Your task to perform on an android device: check google app version Image 0: 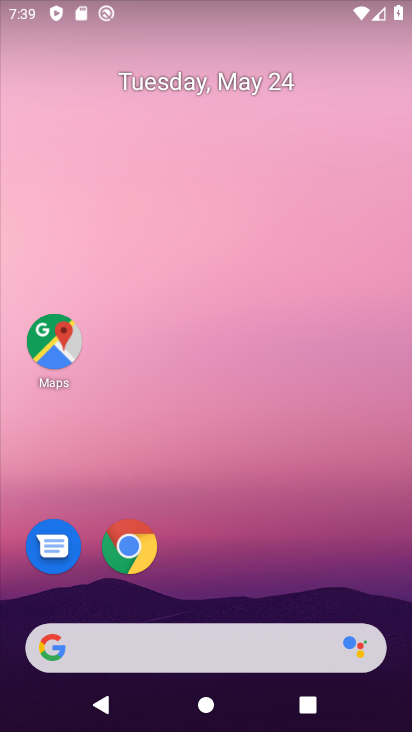
Step 0: click (230, 651)
Your task to perform on an android device: check google app version Image 1: 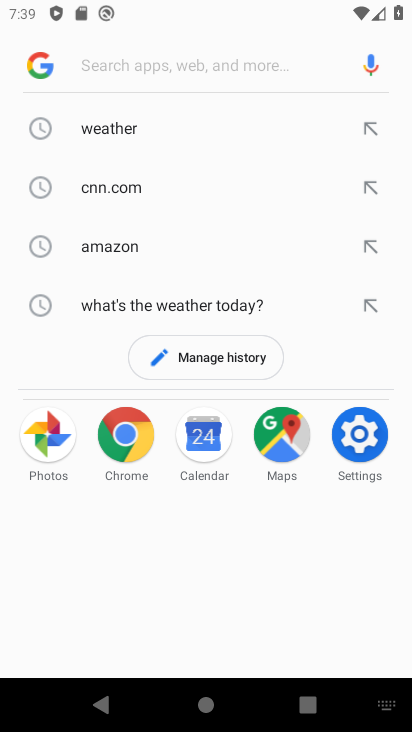
Step 1: click (34, 54)
Your task to perform on an android device: check google app version Image 2: 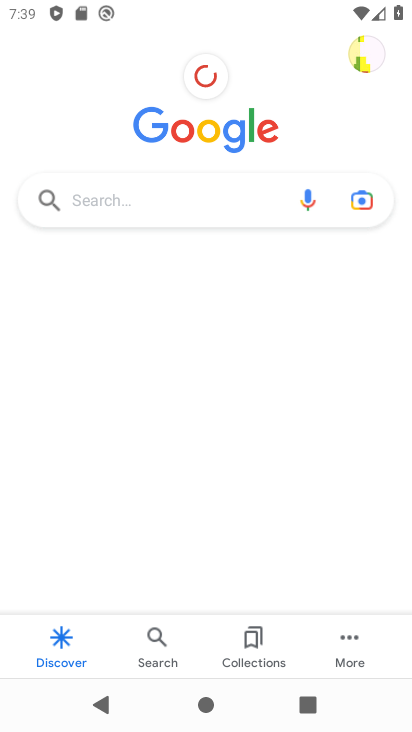
Step 2: click (351, 635)
Your task to perform on an android device: check google app version Image 3: 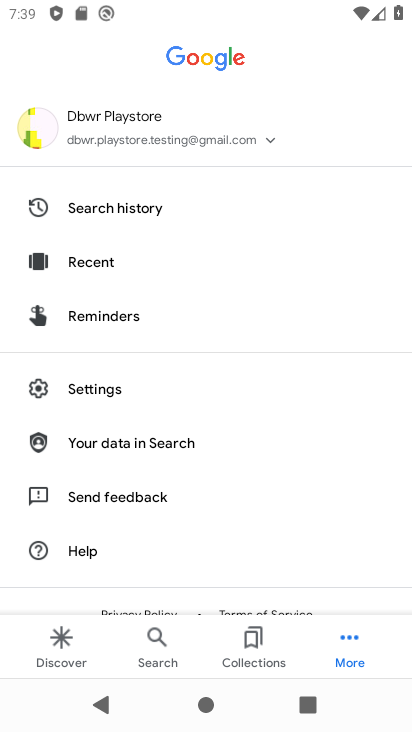
Step 3: click (124, 383)
Your task to perform on an android device: check google app version Image 4: 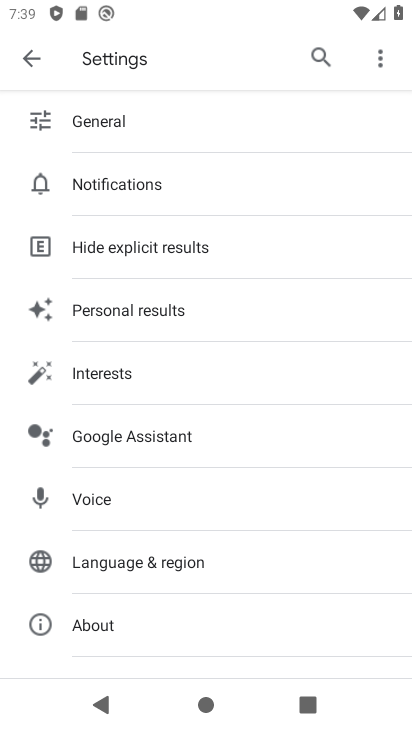
Step 4: click (106, 620)
Your task to perform on an android device: check google app version Image 5: 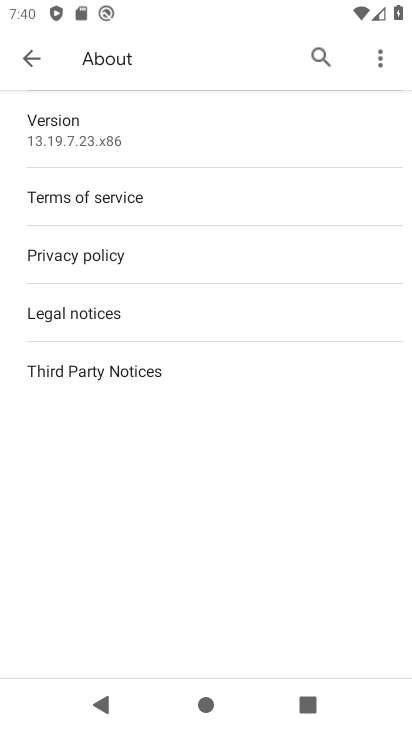
Step 5: task complete